Your task to perform on an android device: Check the news Image 0: 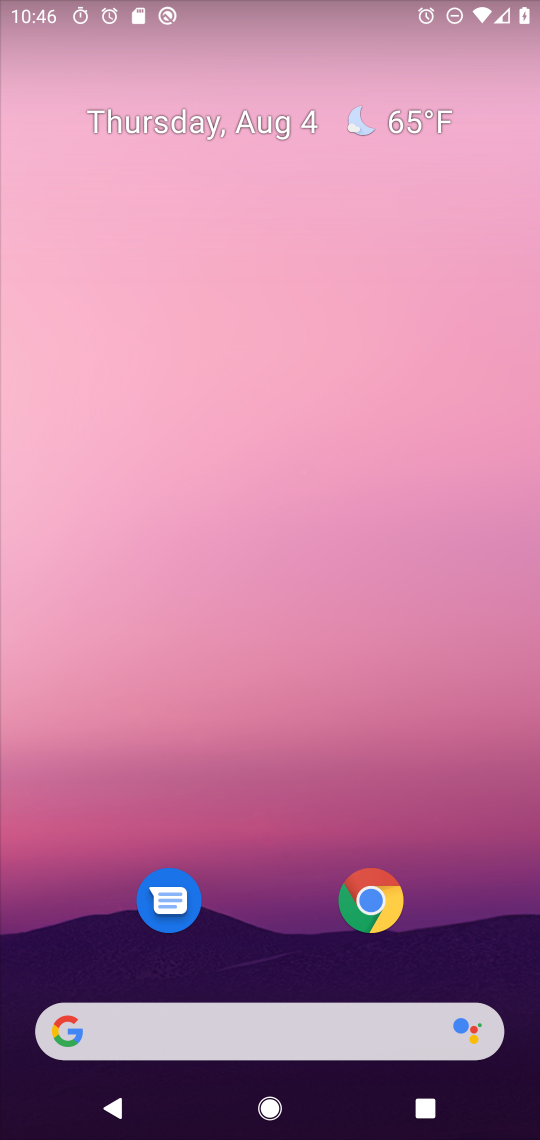
Step 0: click (374, 901)
Your task to perform on an android device: Check the news Image 1: 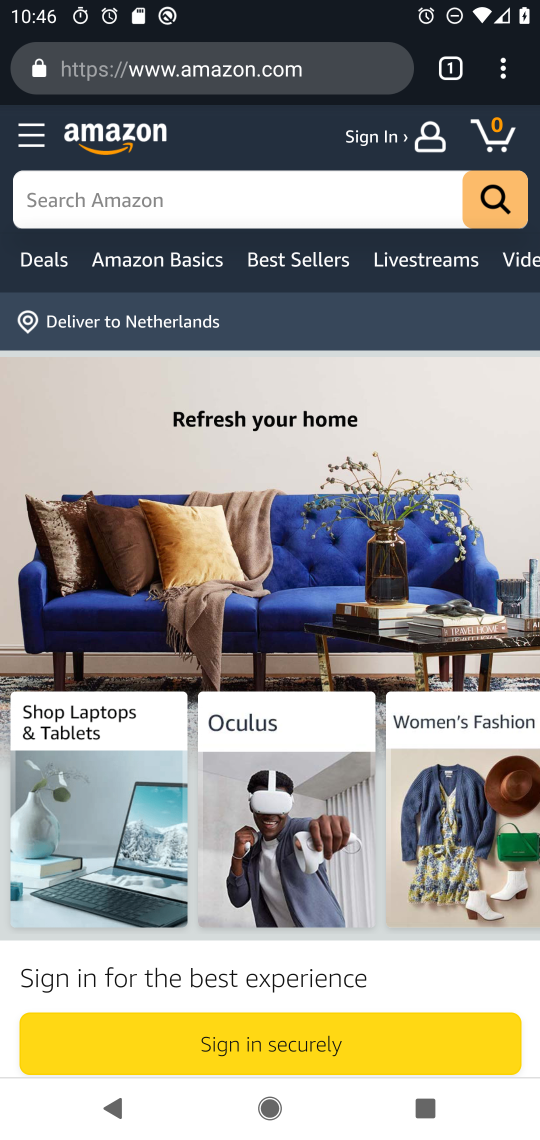
Step 1: click (342, 74)
Your task to perform on an android device: Check the news Image 2: 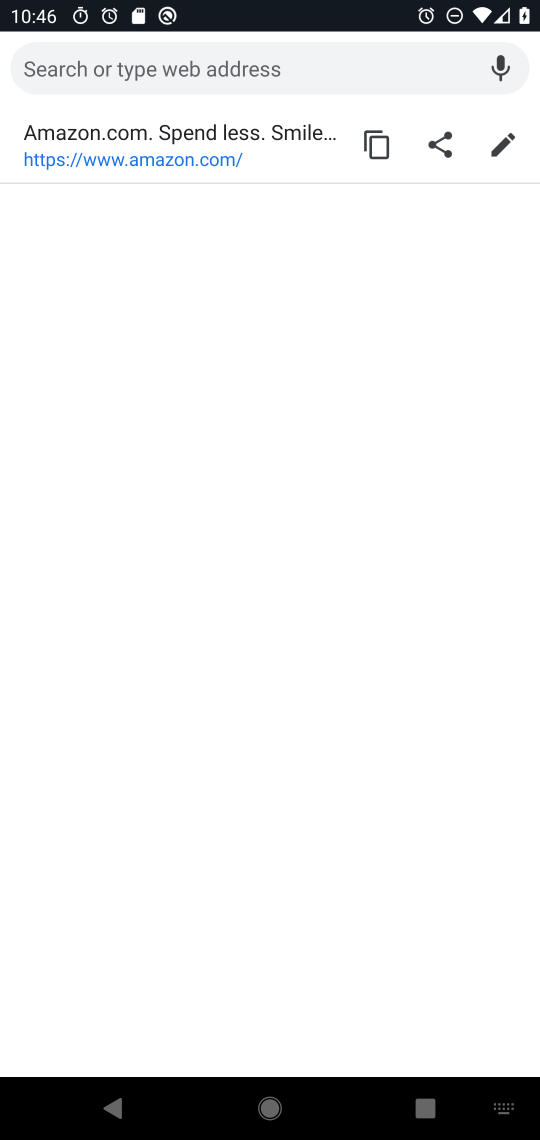
Step 2: type "news"
Your task to perform on an android device: Check the news Image 3: 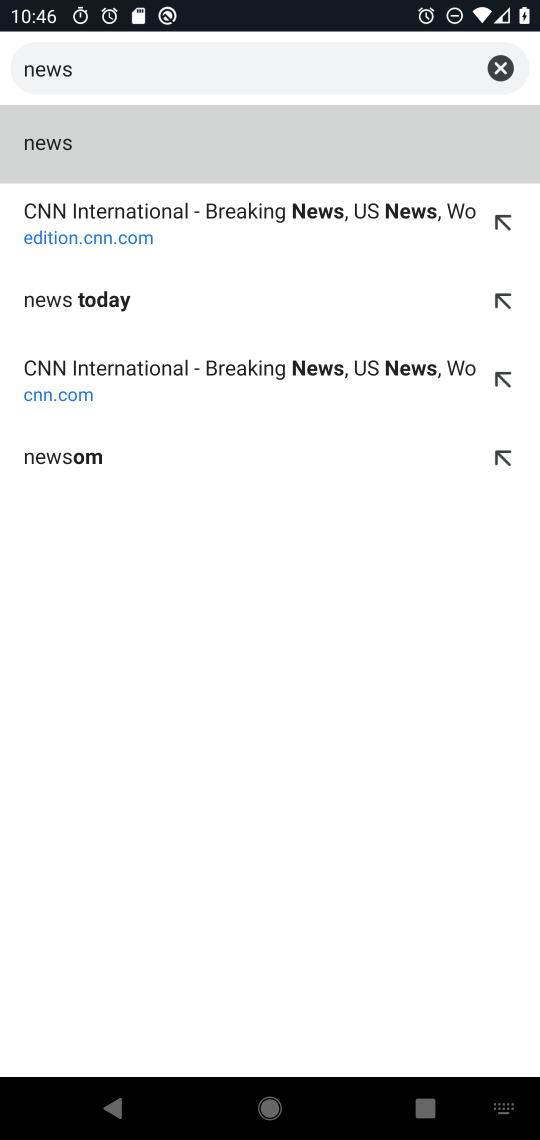
Step 3: click (82, 285)
Your task to perform on an android device: Check the news Image 4: 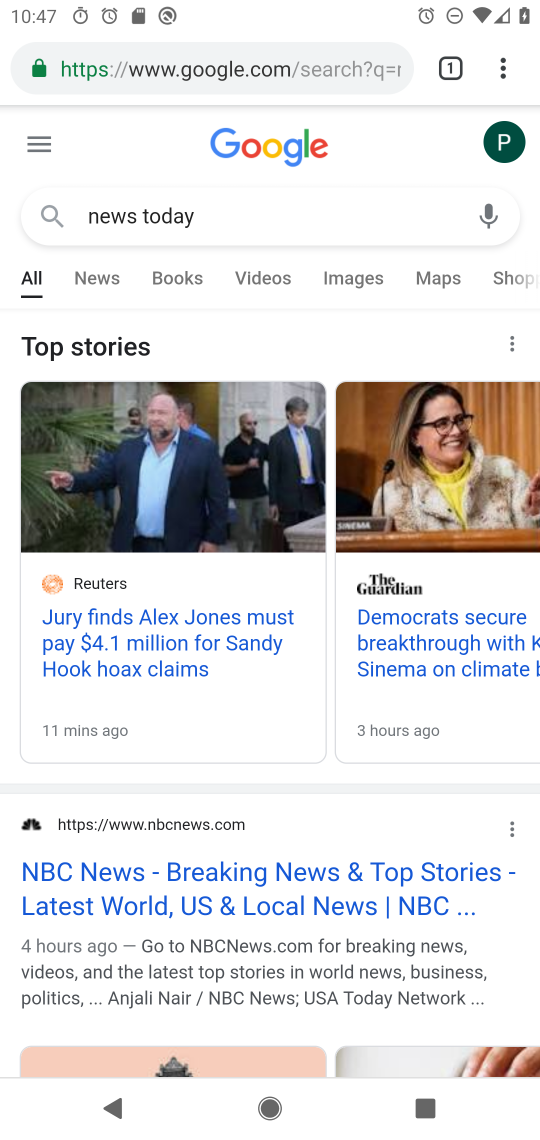
Step 4: task complete